Your task to perform on an android device: check android version Image 0: 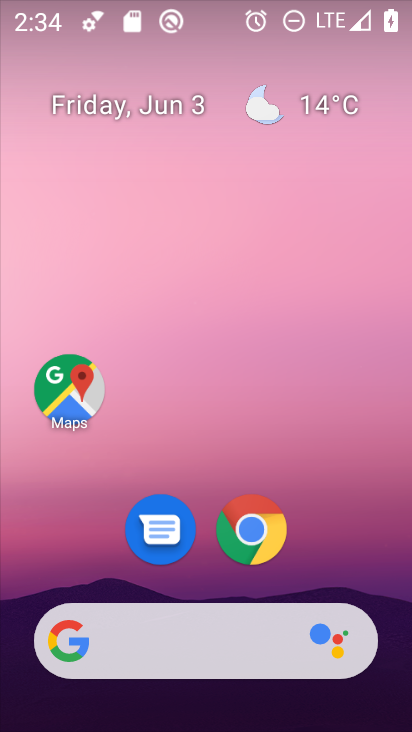
Step 0: drag from (365, 576) to (350, 244)
Your task to perform on an android device: check android version Image 1: 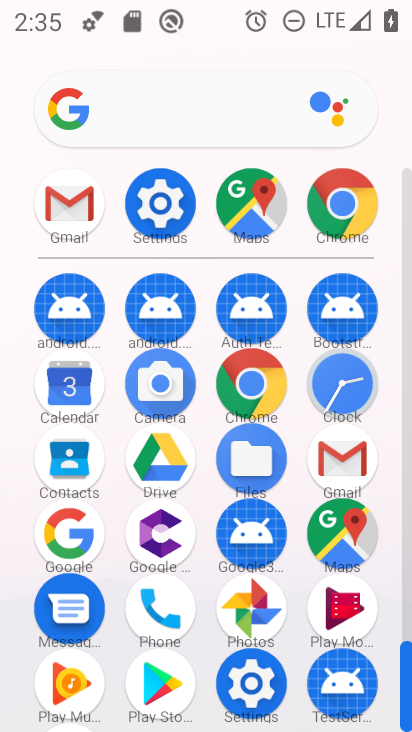
Step 1: click (171, 202)
Your task to perform on an android device: check android version Image 2: 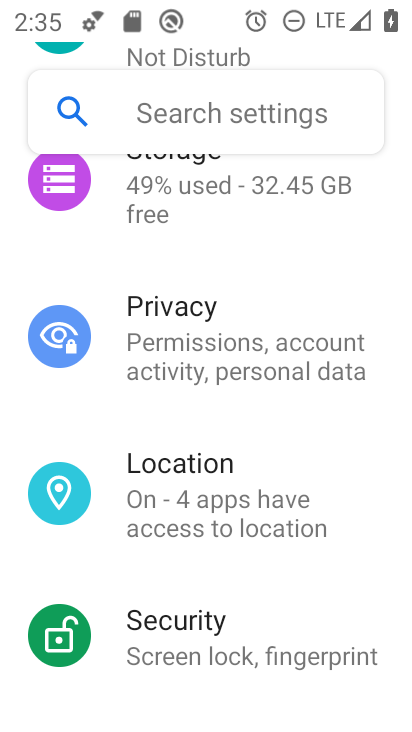
Step 2: drag from (370, 259) to (358, 398)
Your task to perform on an android device: check android version Image 3: 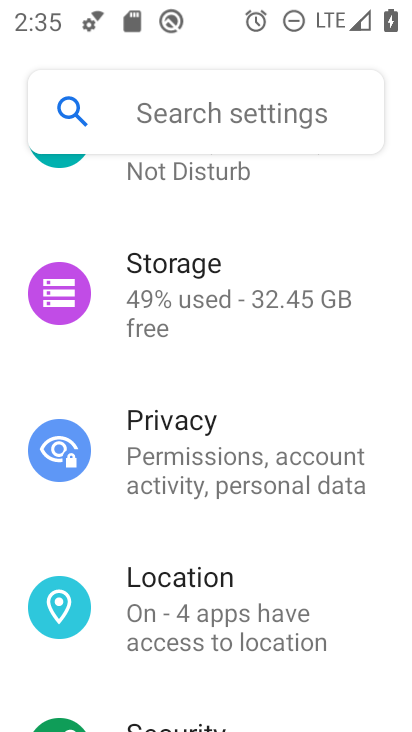
Step 3: drag from (355, 234) to (346, 384)
Your task to perform on an android device: check android version Image 4: 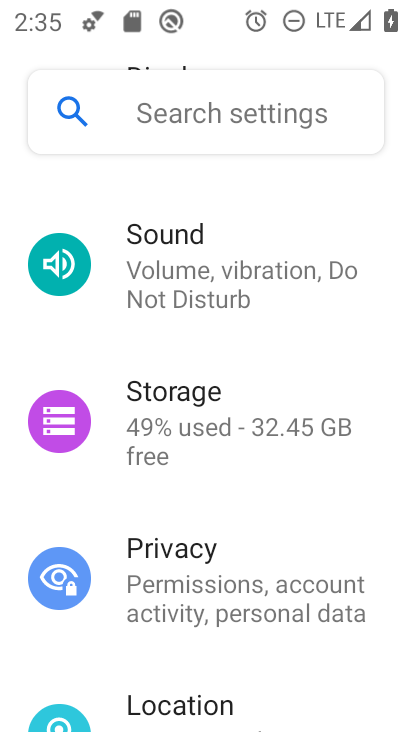
Step 4: drag from (340, 212) to (343, 349)
Your task to perform on an android device: check android version Image 5: 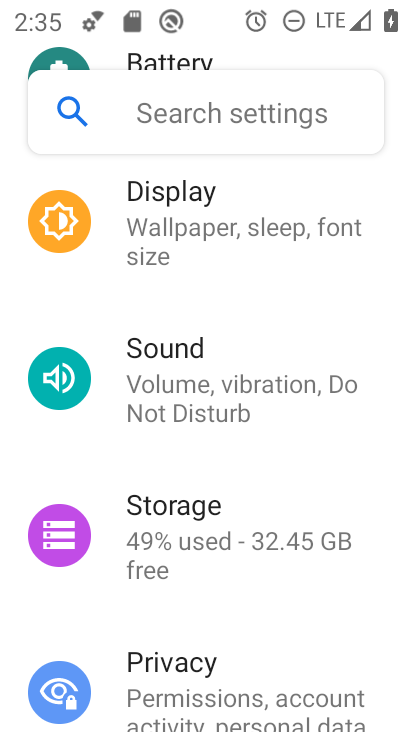
Step 5: drag from (359, 201) to (351, 372)
Your task to perform on an android device: check android version Image 6: 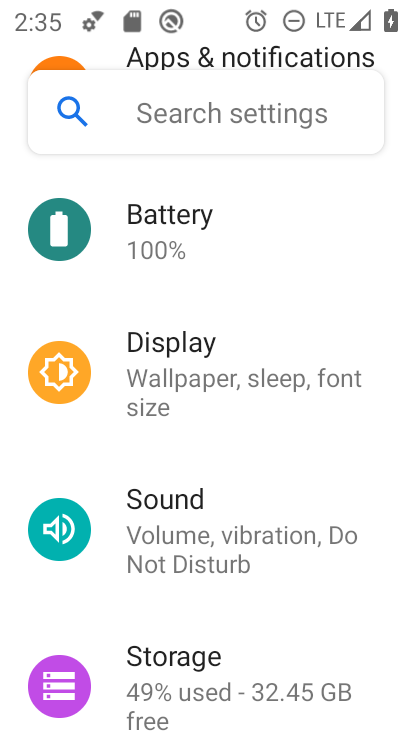
Step 6: drag from (351, 216) to (345, 349)
Your task to perform on an android device: check android version Image 7: 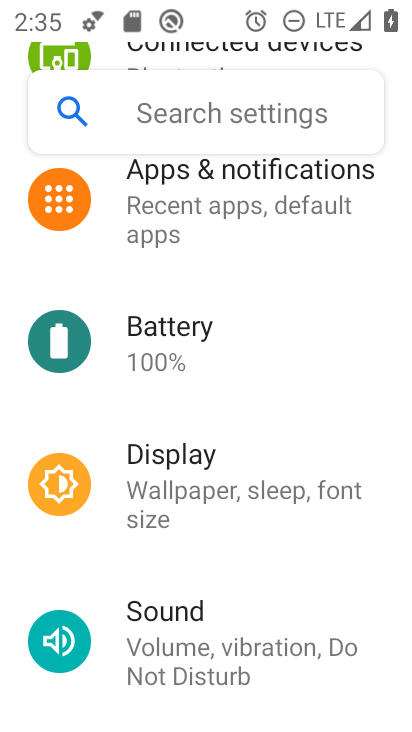
Step 7: drag from (337, 250) to (323, 386)
Your task to perform on an android device: check android version Image 8: 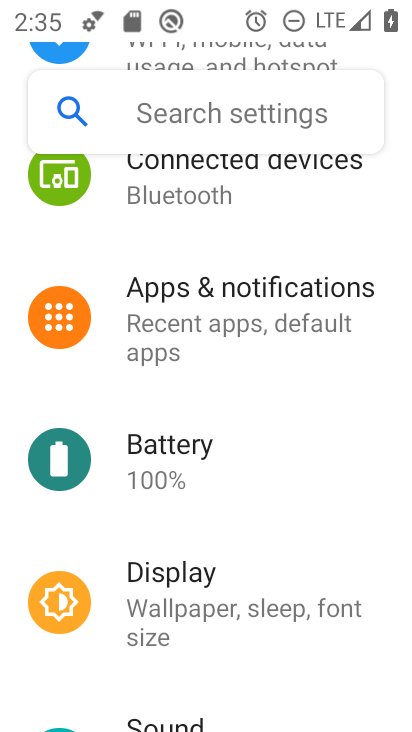
Step 8: drag from (327, 219) to (320, 392)
Your task to perform on an android device: check android version Image 9: 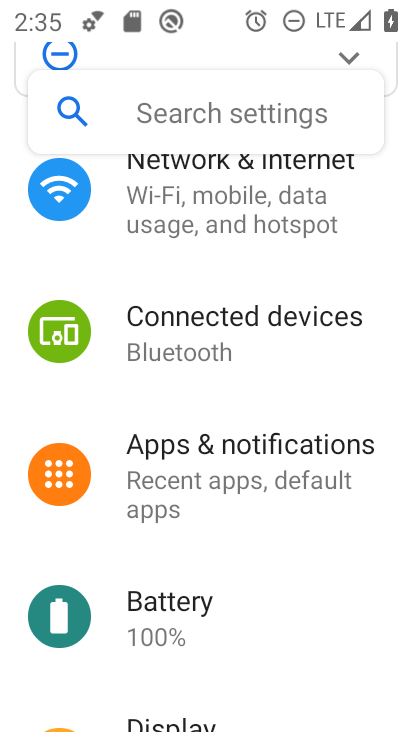
Step 9: drag from (333, 362) to (356, 247)
Your task to perform on an android device: check android version Image 10: 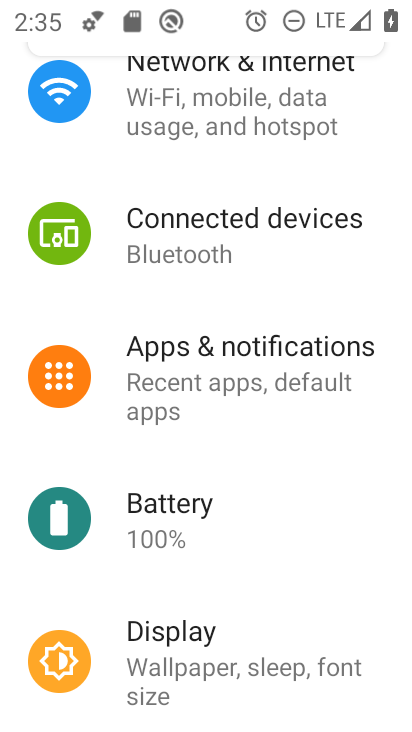
Step 10: drag from (365, 389) to (371, 267)
Your task to perform on an android device: check android version Image 11: 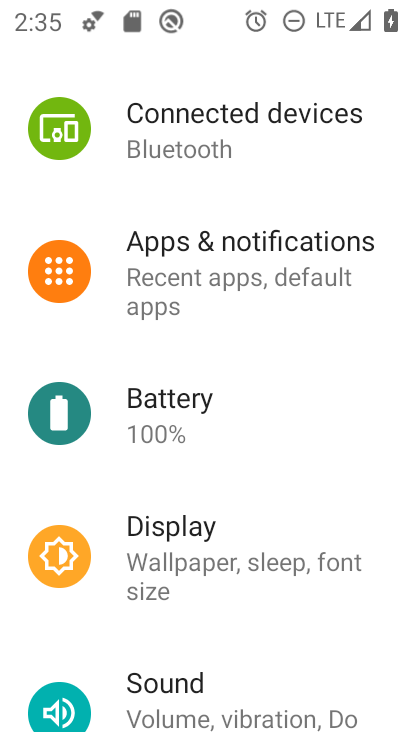
Step 11: drag from (364, 362) to (370, 255)
Your task to perform on an android device: check android version Image 12: 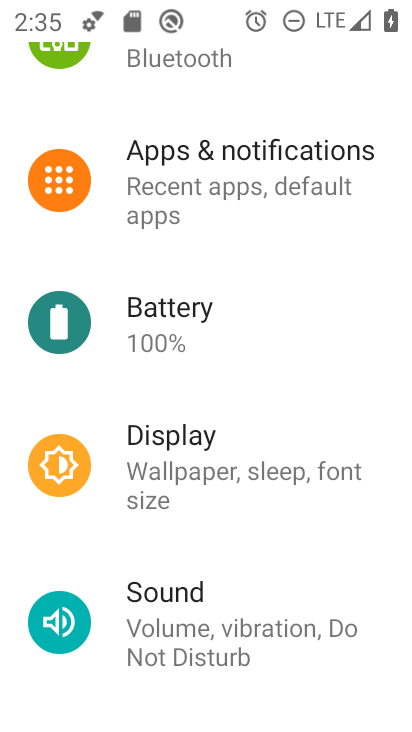
Step 12: drag from (368, 353) to (379, 244)
Your task to perform on an android device: check android version Image 13: 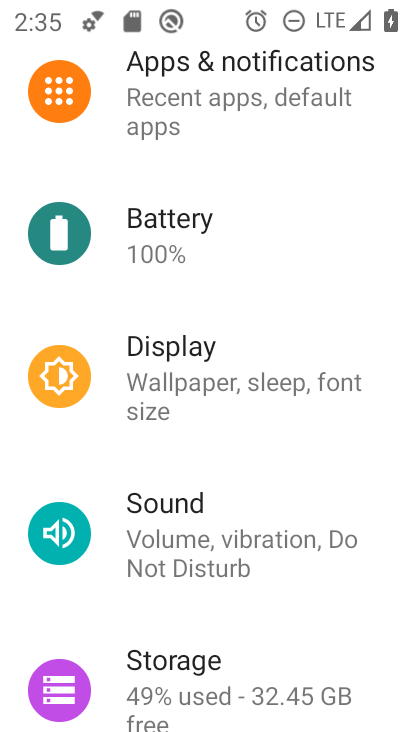
Step 13: drag from (343, 424) to (348, 309)
Your task to perform on an android device: check android version Image 14: 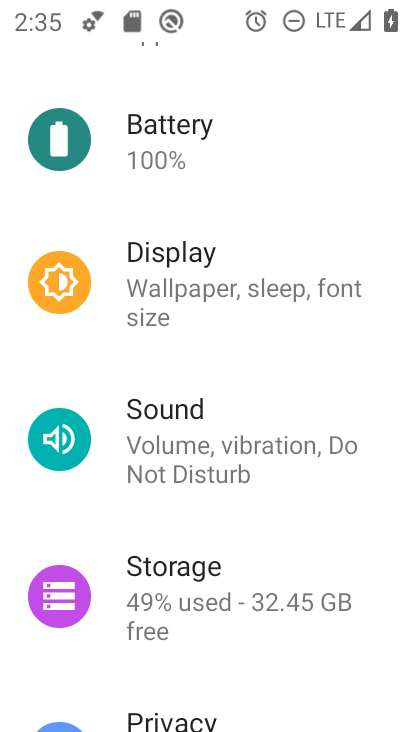
Step 14: drag from (351, 406) to (356, 265)
Your task to perform on an android device: check android version Image 15: 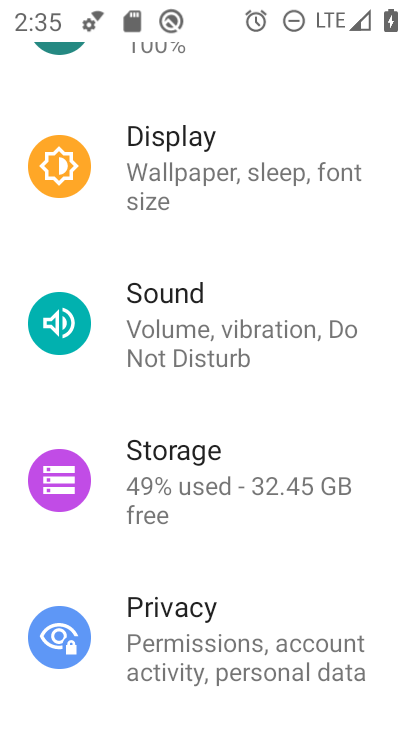
Step 15: drag from (339, 510) to (357, 369)
Your task to perform on an android device: check android version Image 16: 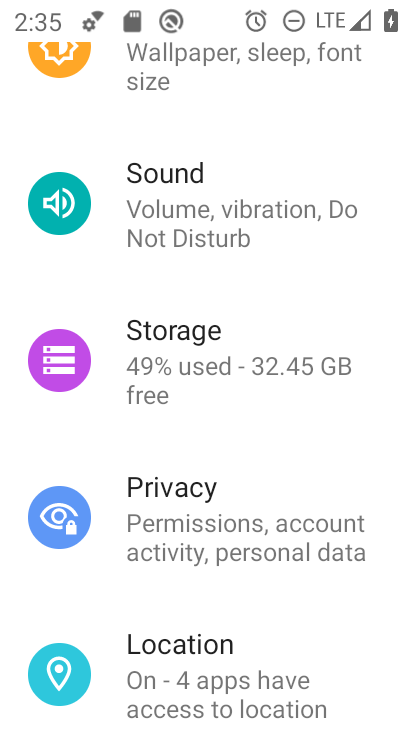
Step 16: drag from (369, 475) to (376, 354)
Your task to perform on an android device: check android version Image 17: 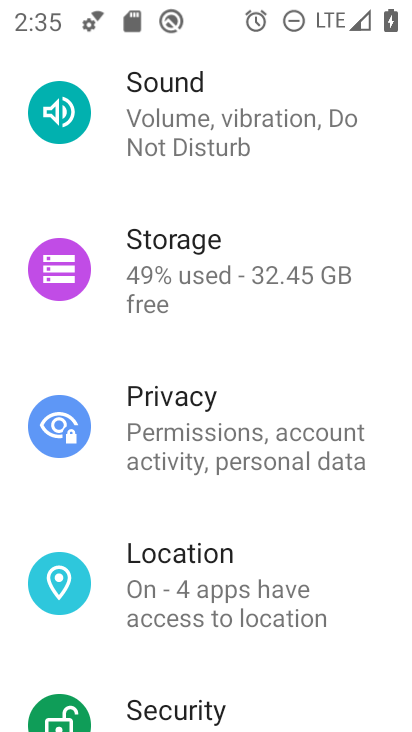
Step 17: drag from (355, 520) to (352, 361)
Your task to perform on an android device: check android version Image 18: 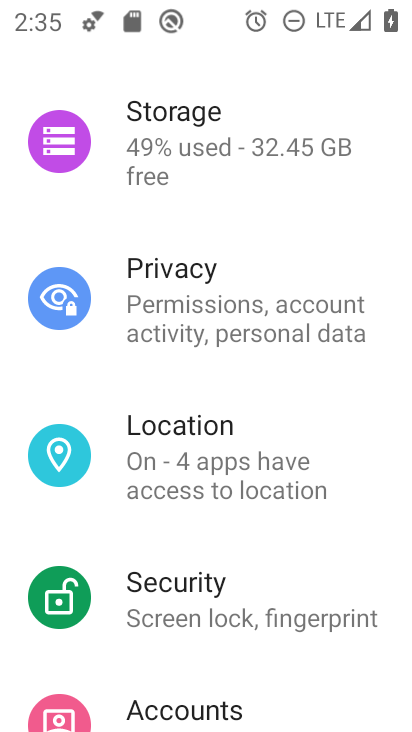
Step 18: drag from (345, 547) to (355, 335)
Your task to perform on an android device: check android version Image 19: 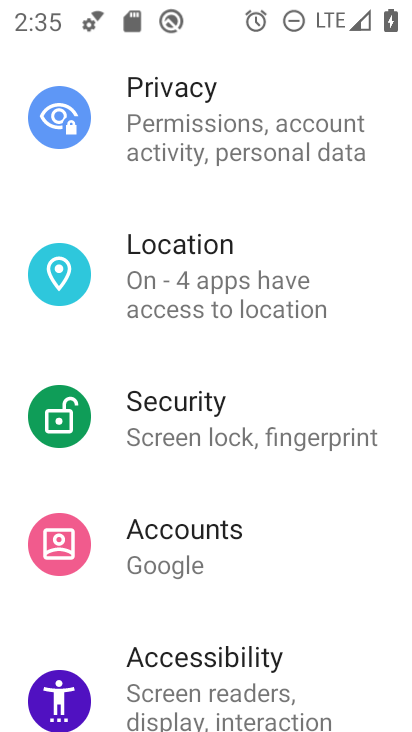
Step 19: drag from (336, 548) to (333, 367)
Your task to perform on an android device: check android version Image 20: 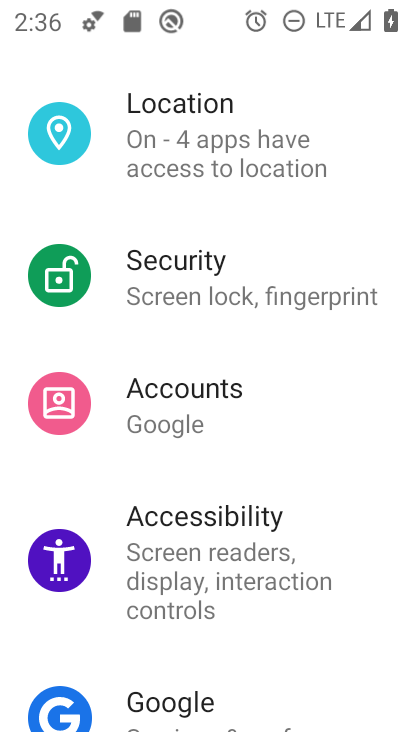
Step 20: drag from (344, 604) to (363, 407)
Your task to perform on an android device: check android version Image 21: 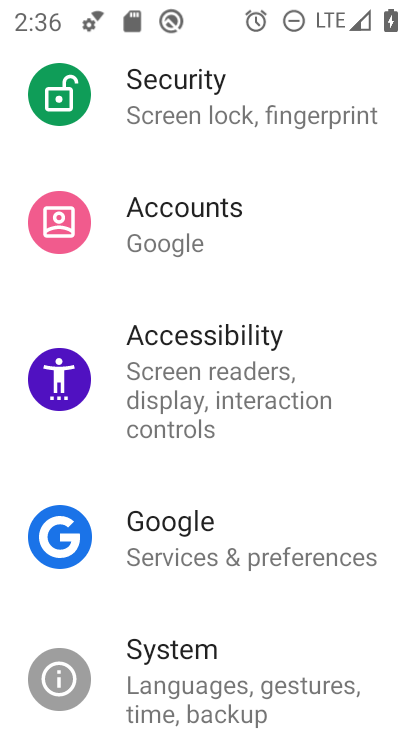
Step 21: drag from (356, 494) to (373, 320)
Your task to perform on an android device: check android version Image 22: 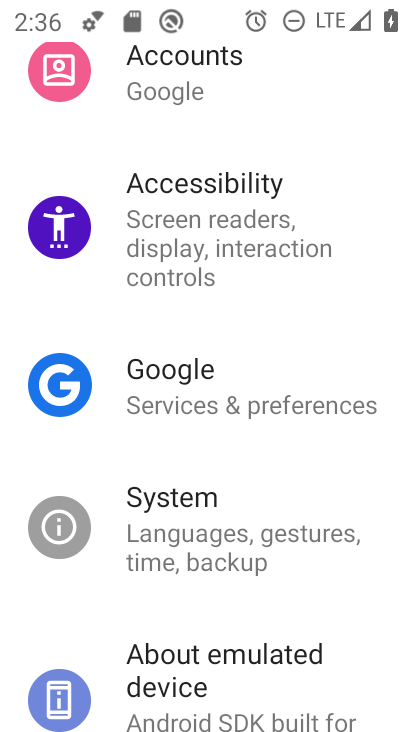
Step 22: click (278, 555)
Your task to perform on an android device: check android version Image 23: 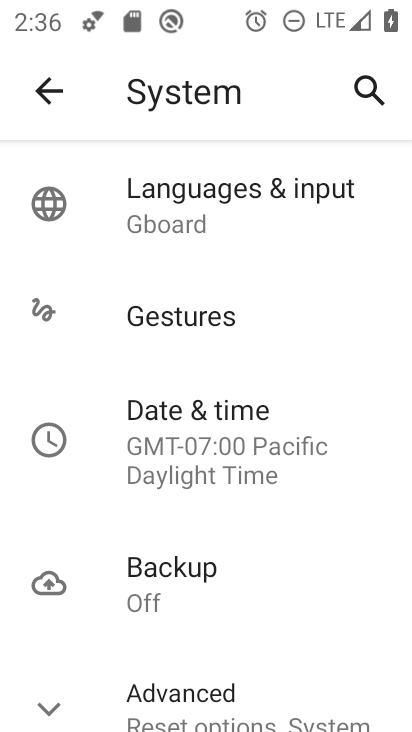
Step 23: drag from (341, 552) to (349, 404)
Your task to perform on an android device: check android version Image 24: 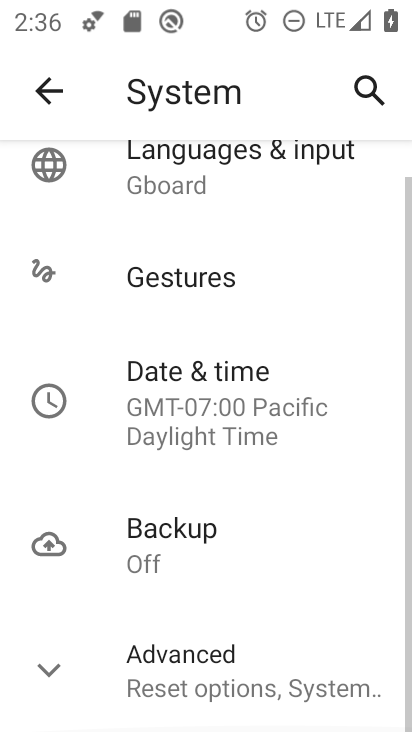
Step 24: click (271, 667)
Your task to perform on an android device: check android version Image 25: 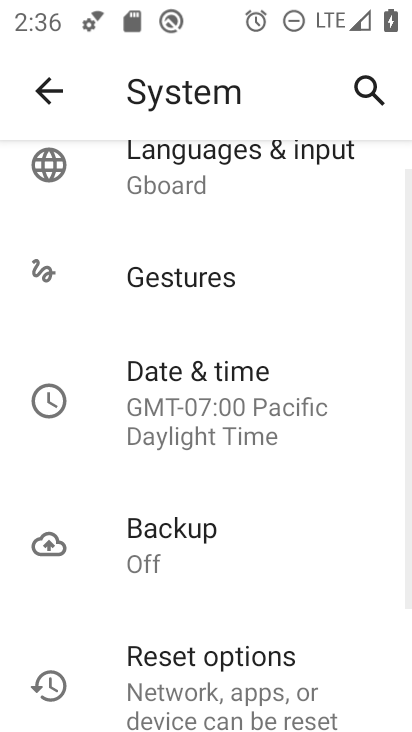
Step 25: drag from (347, 557) to (350, 405)
Your task to perform on an android device: check android version Image 26: 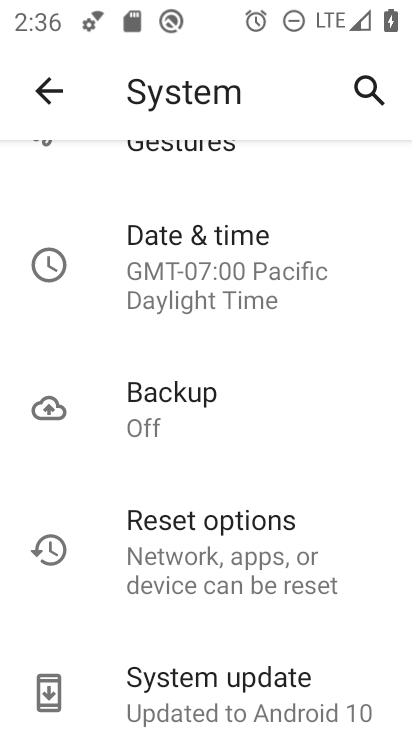
Step 26: drag from (358, 606) to (362, 433)
Your task to perform on an android device: check android version Image 27: 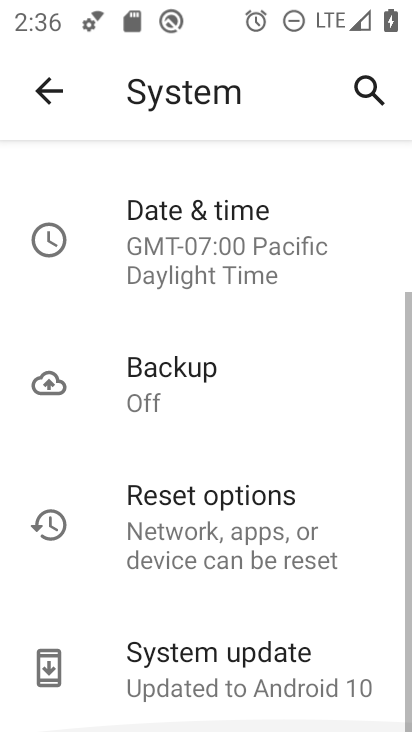
Step 27: click (285, 670)
Your task to perform on an android device: check android version Image 28: 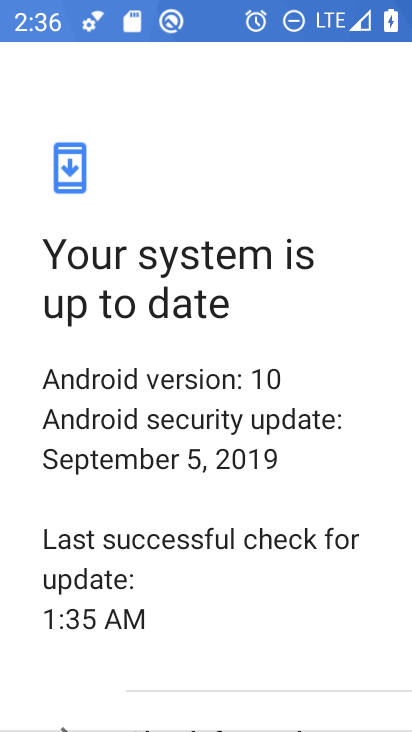
Step 28: task complete